Your task to perform on an android device: Check the weather Image 0: 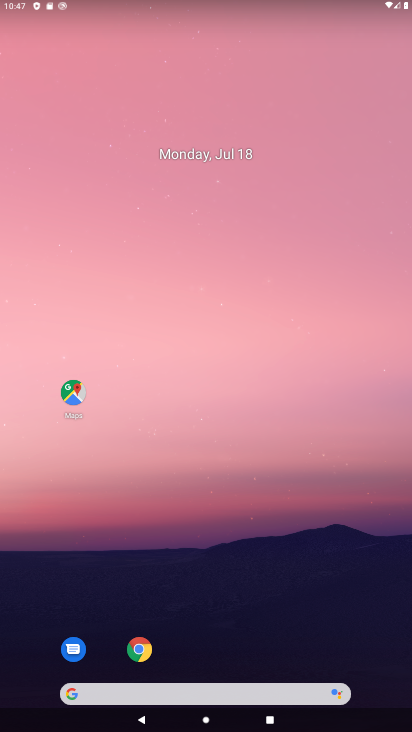
Step 0: click (181, 686)
Your task to perform on an android device: Check the weather Image 1: 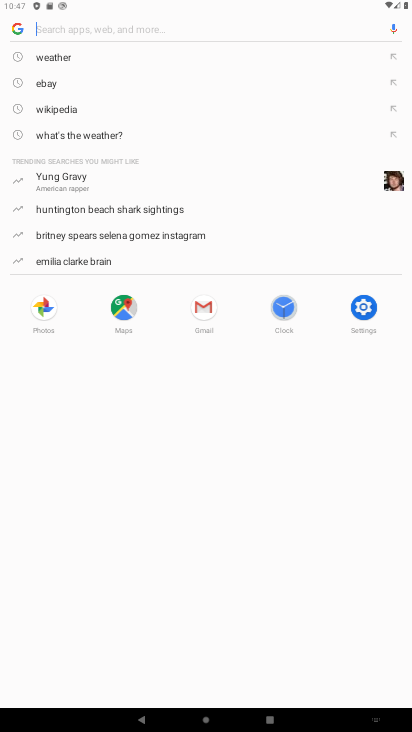
Step 1: type "weather"
Your task to perform on an android device: Check the weather Image 2: 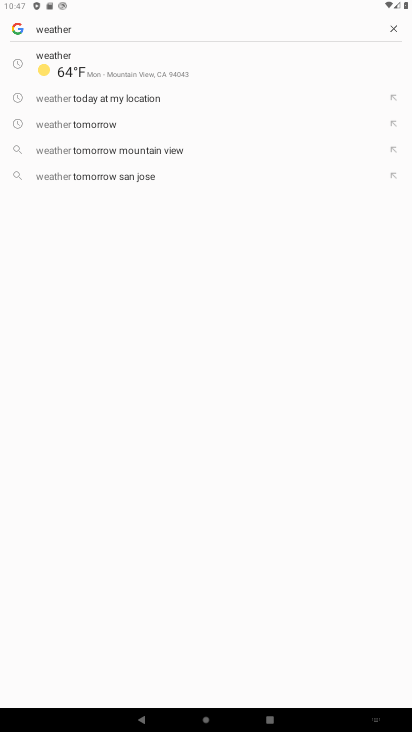
Step 2: click (124, 62)
Your task to perform on an android device: Check the weather Image 3: 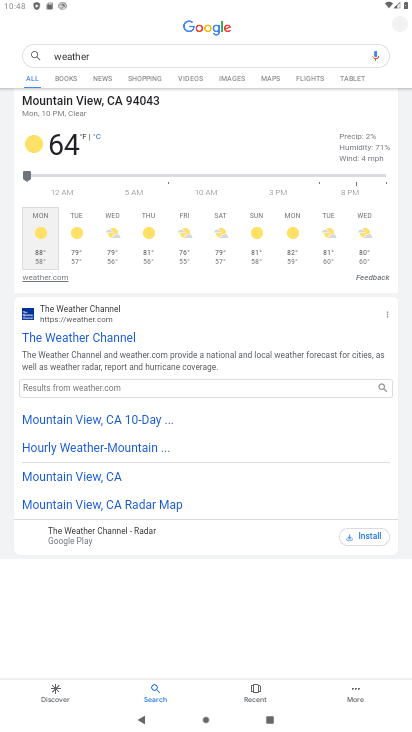
Step 3: task complete